Your task to perform on an android device: turn on improve location accuracy Image 0: 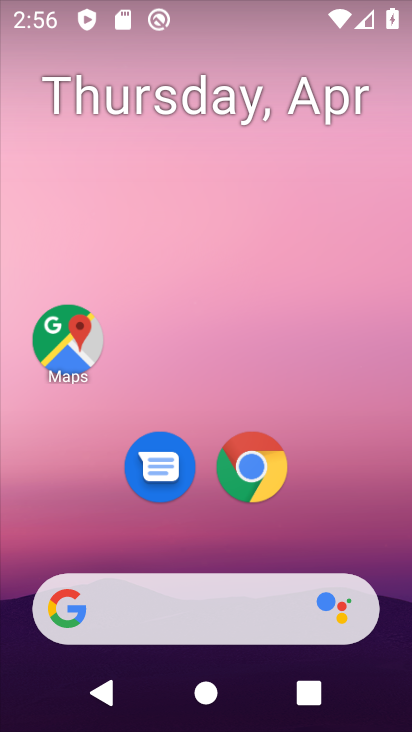
Step 0: drag from (359, 519) to (362, 82)
Your task to perform on an android device: turn on improve location accuracy Image 1: 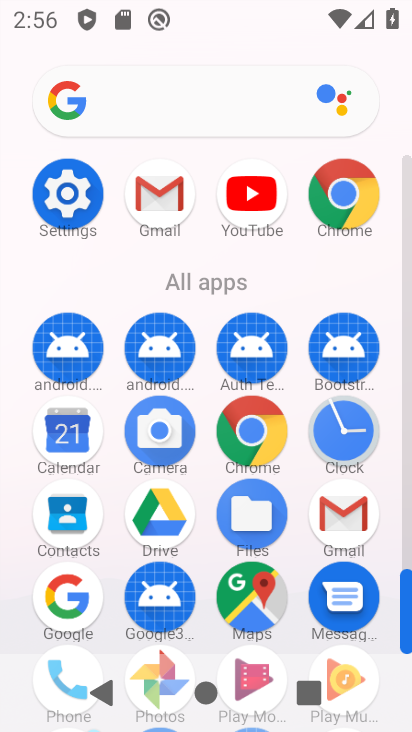
Step 1: click (78, 192)
Your task to perform on an android device: turn on improve location accuracy Image 2: 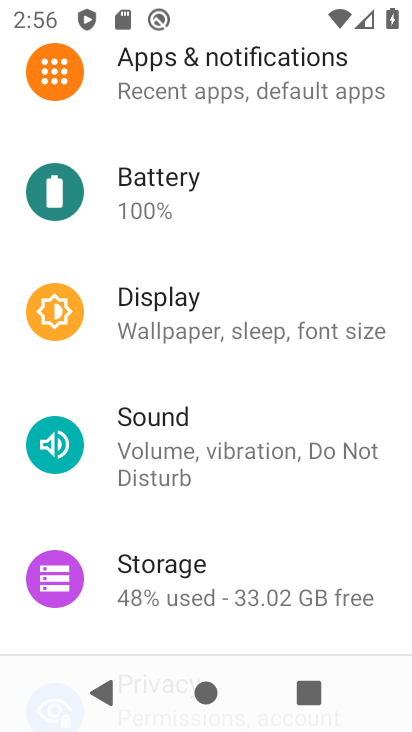
Step 2: drag from (259, 529) to (296, 187)
Your task to perform on an android device: turn on improve location accuracy Image 3: 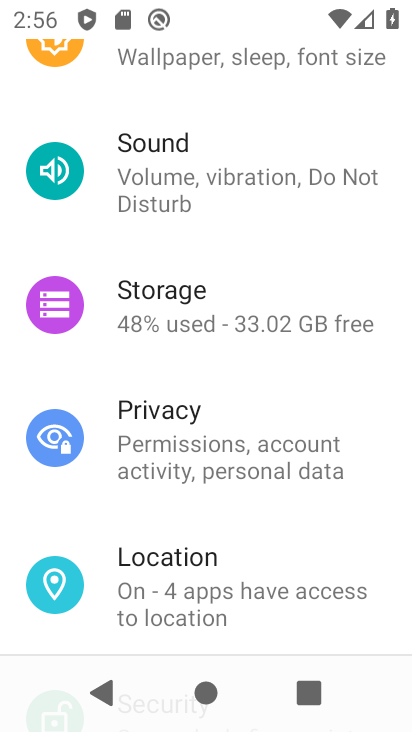
Step 3: click (223, 557)
Your task to perform on an android device: turn on improve location accuracy Image 4: 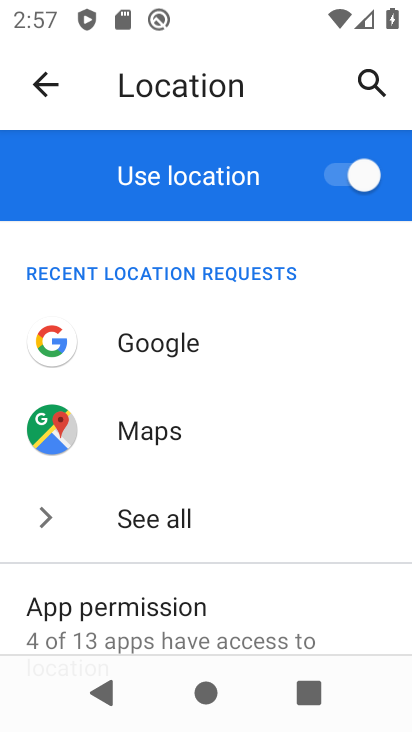
Step 4: drag from (262, 507) to (280, 294)
Your task to perform on an android device: turn on improve location accuracy Image 5: 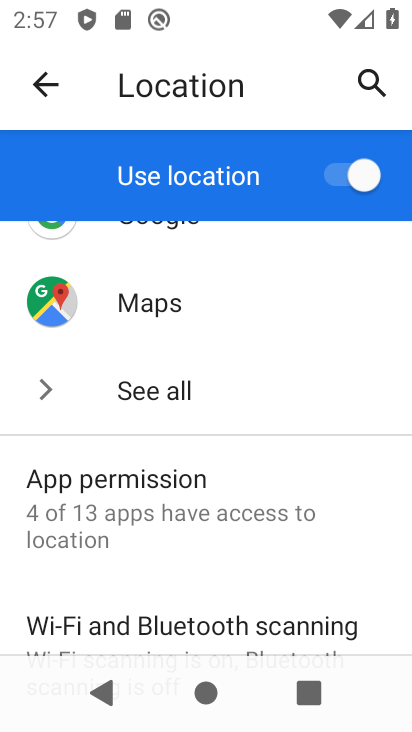
Step 5: drag from (292, 277) to (287, 545)
Your task to perform on an android device: turn on improve location accuracy Image 6: 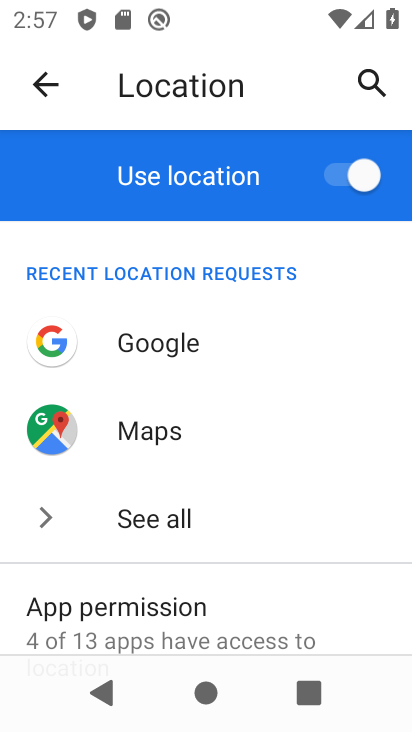
Step 6: drag from (256, 529) to (266, 232)
Your task to perform on an android device: turn on improve location accuracy Image 7: 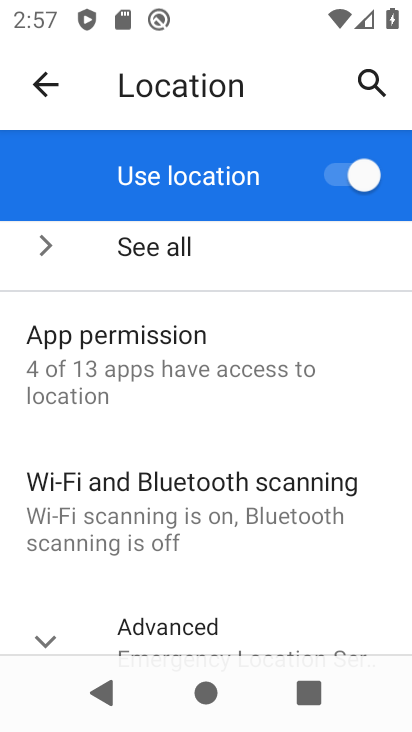
Step 7: click (40, 633)
Your task to perform on an android device: turn on improve location accuracy Image 8: 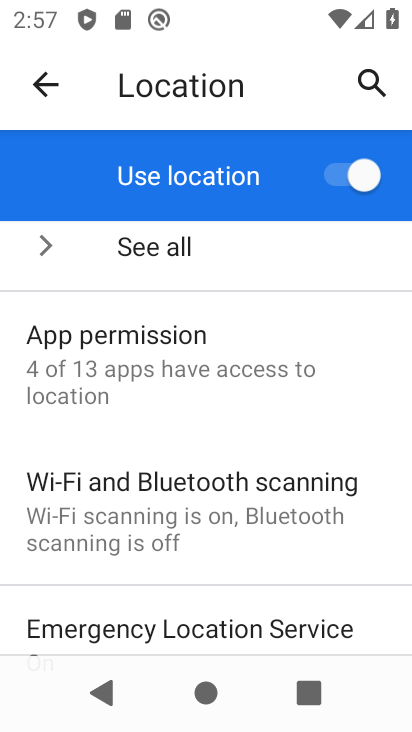
Step 8: task complete